Your task to perform on an android device: turn off improve location accuracy Image 0: 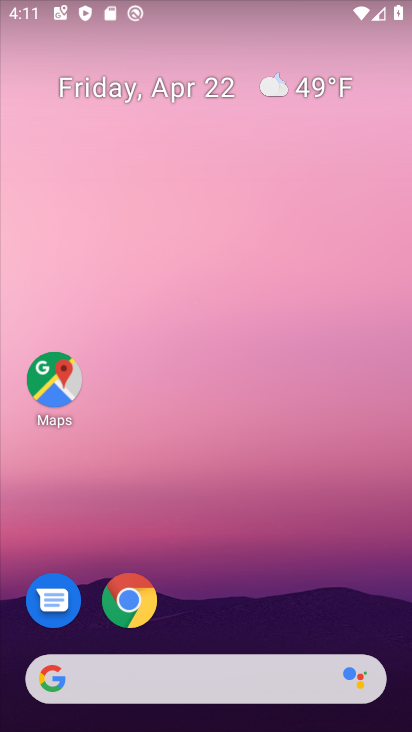
Step 0: drag from (203, 529) to (247, 41)
Your task to perform on an android device: turn off improve location accuracy Image 1: 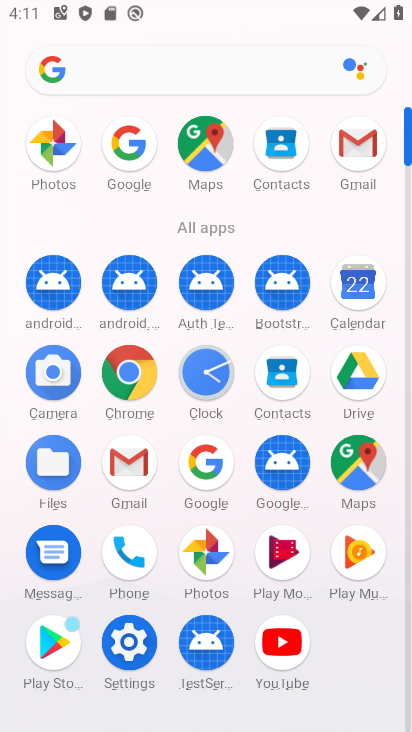
Step 1: click (128, 643)
Your task to perform on an android device: turn off improve location accuracy Image 2: 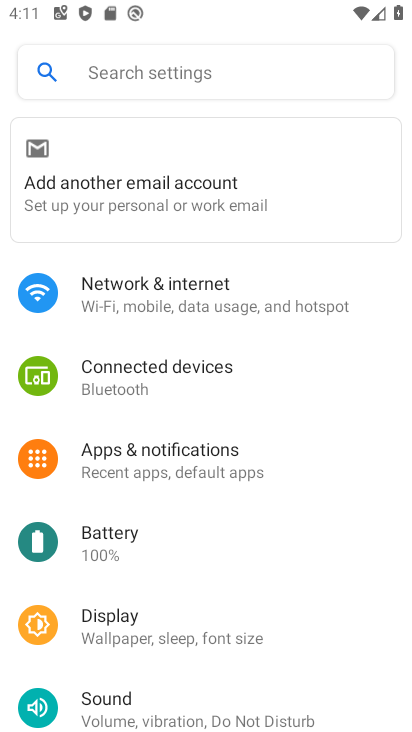
Step 2: drag from (192, 497) to (273, 370)
Your task to perform on an android device: turn off improve location accuracy Image 3: 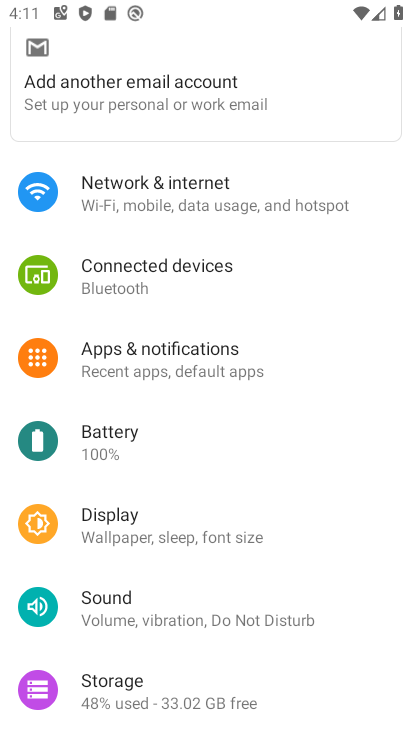
Step 3: drag from (182, 476) to (255, 359)
Your task to perform on an android device: turn off improve location accuracy Image 4: 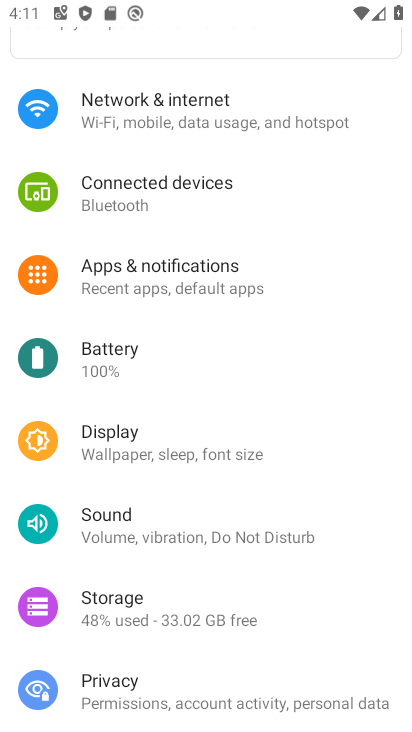
Step 4: drag from (169, 481) to (203, 388)
Your task to perform on an android device: turn off improve location accuracy Image 5: 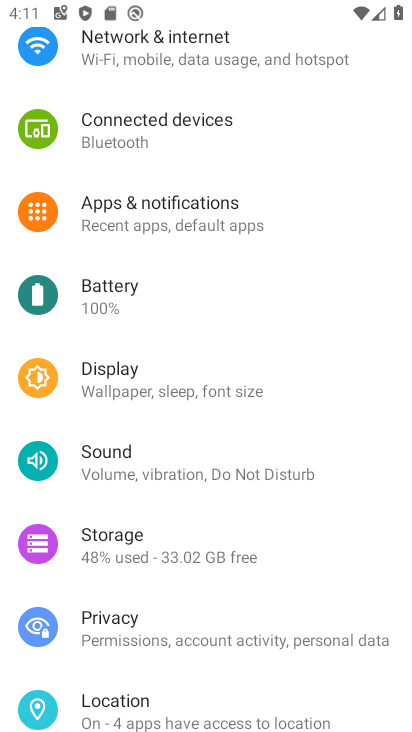
Step 5: drag from (169, 508) to (219, 397)
Your task to perform on an android device: turn off improve location accuracy Image 6: 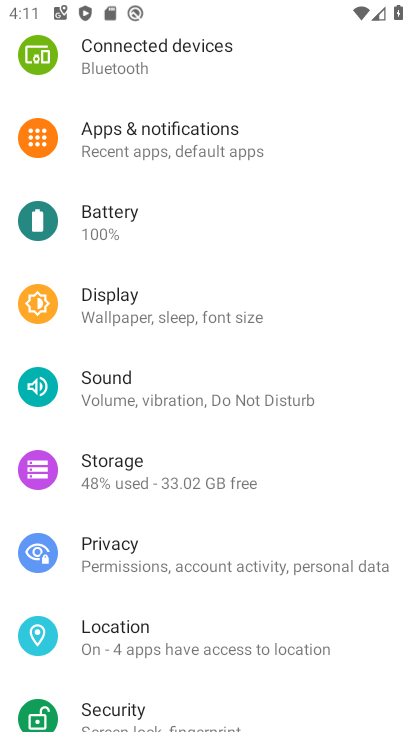
Step 6: drag from (173, 517) to (232, 385)
Your task to perform on an android device: turn off improve location accuracy Image 7: 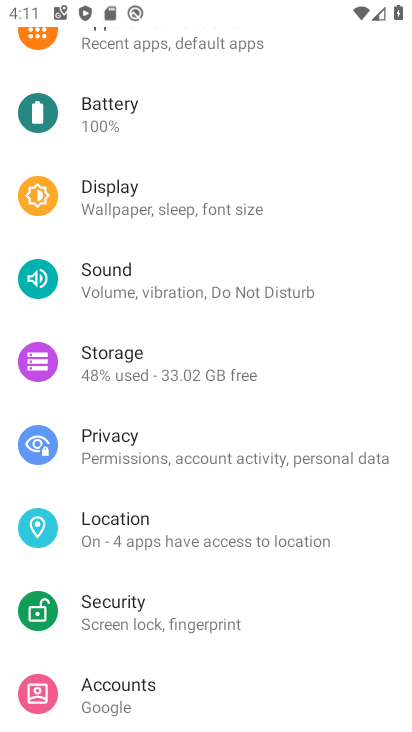
Step 7: drag from (180, 500) to (255, 376)
Your task to perform on an android device: turn off improve location accuracy Image 8: 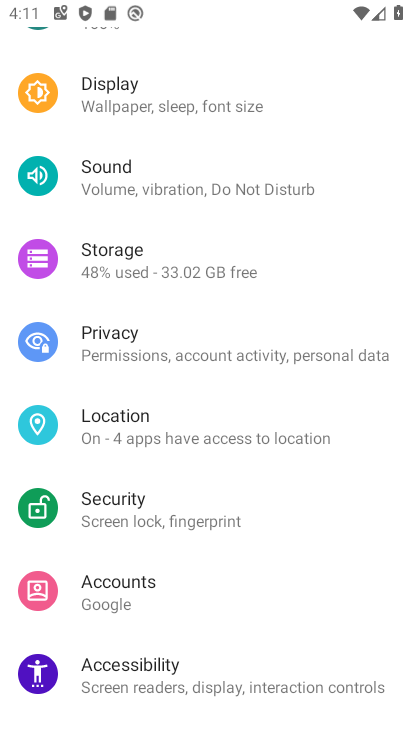
Step 8: click (192, 444)
Your task to perform on an android device: turn off improve location accuracy Image 9: 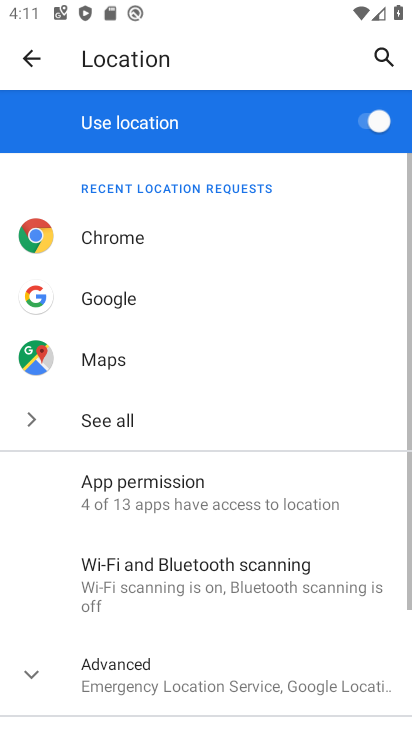
Step 9: drag from (327, 538) to (314, 372)
Your task to perform on an android device: turn off improve location accuracy Image 10: 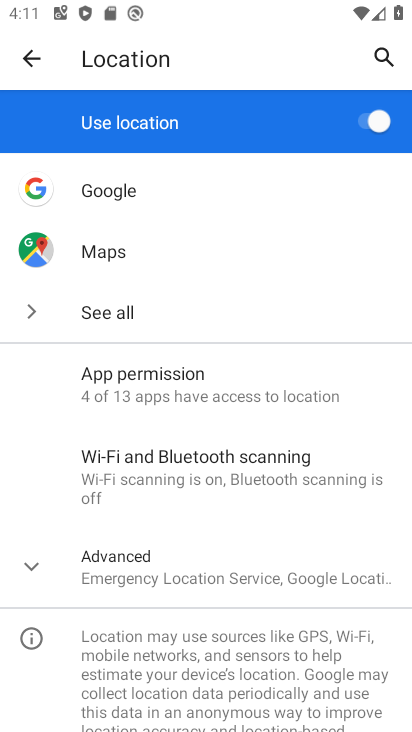
Step 10: click (205, 575)
Your task to perform on an android device: turn off improve location accuracy Image 11: 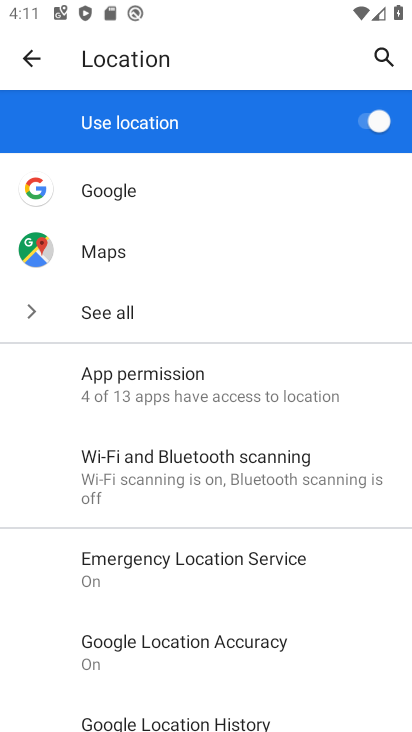
Step 11: click (216, 634)
Your task to perform on an android device: turn off improve location accuracy Image 12: 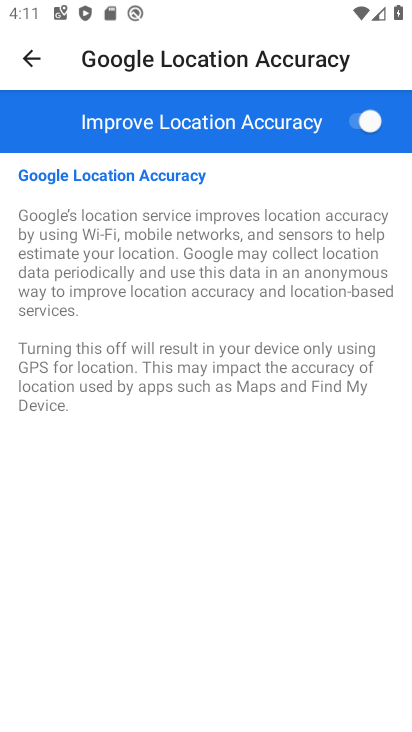
Step 12: click (360, 127)
Your task to perform on an android device: turn off improve location accuracy Image 13: 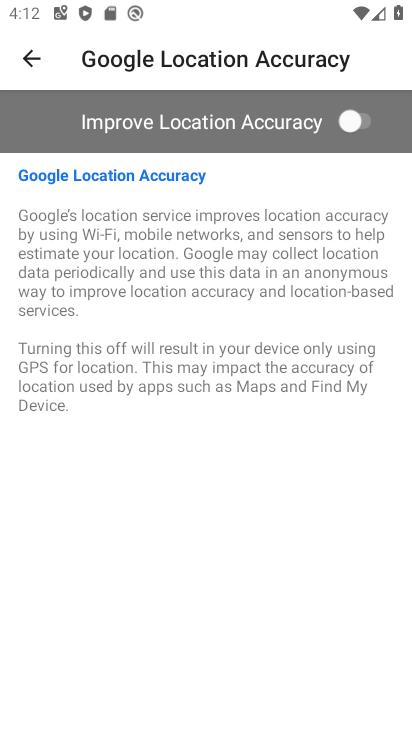
Step 13: task complete